Your task to perform on an android device: Go to accessibility settings Image 0: 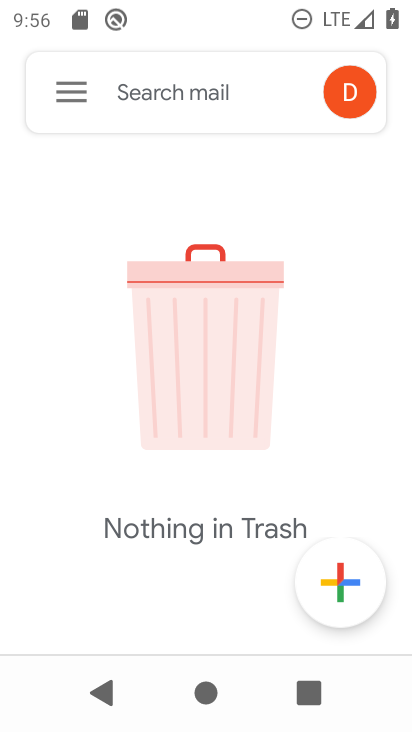
Step 0: click (78, 89)
Your task to perform on an android device: Go to accessibility settings Image 1: 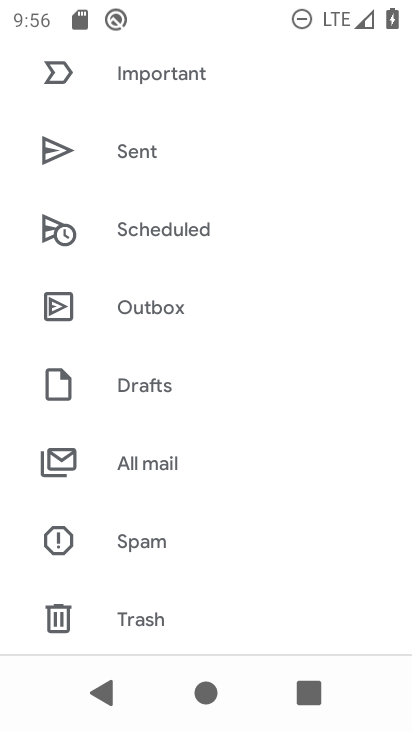
Step 1: drag from (194, 558) to (183, 216)
Your task to perform on an android device: Go to accessibility settings Image 2: 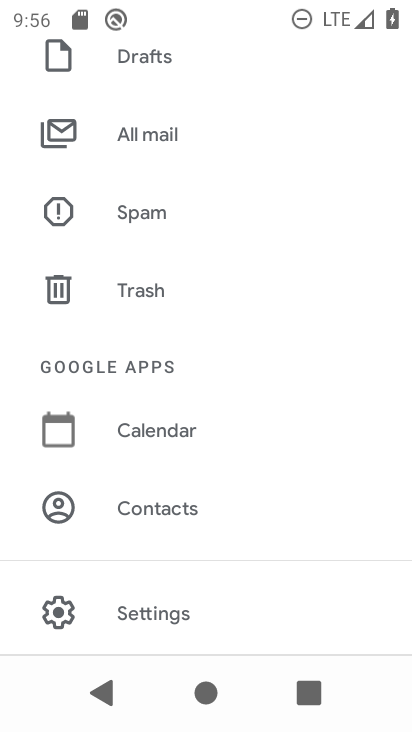
Step 2: click (192, 624)
Your task to perform on an android device: Go to accessibility settings Image 3: 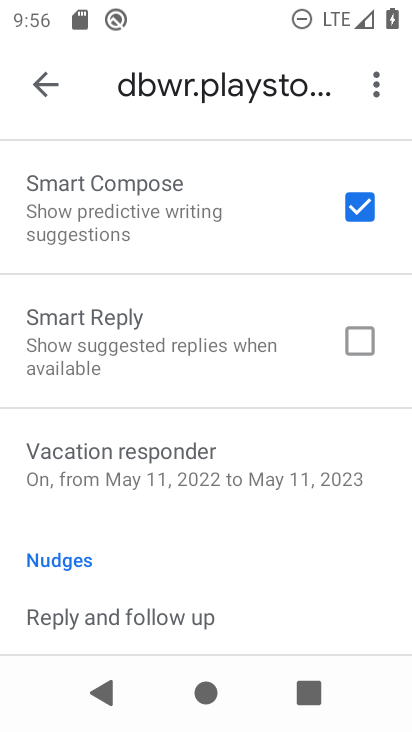
Step 3: press home button
Your task to perform on an android device: Go to accessibility settings Image 4: 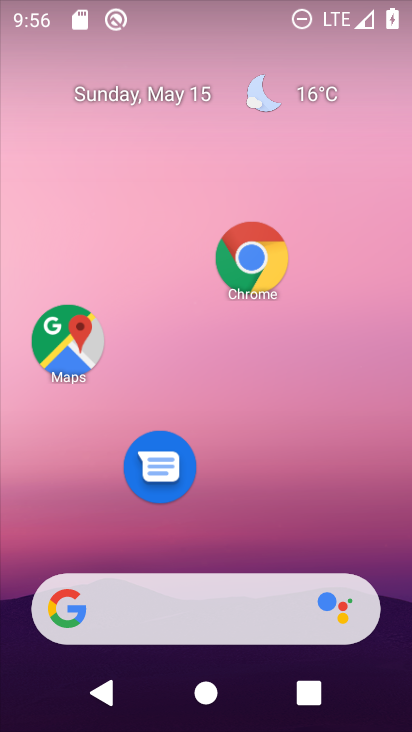
Step 4: drag from (176, 559) to (226, 37)
Your task to perform on an android device: Go to accessibility settings Image 5: 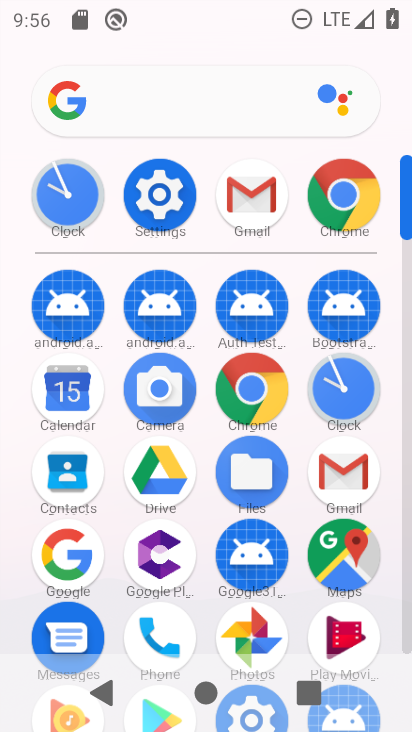
Step 5: click (169, 216)
Your task to perform on an android device: Go to accessibility settings Image 6: 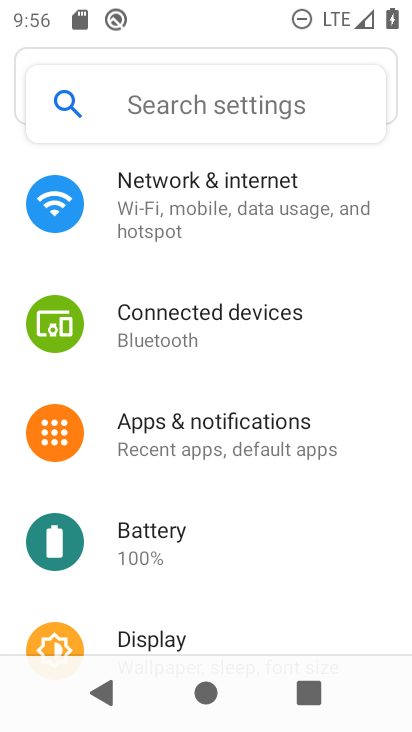
Step 6: drag from (173, 579) to (243, 225)
Your task to perform on an android device: Go to accessibility settings Image 7: 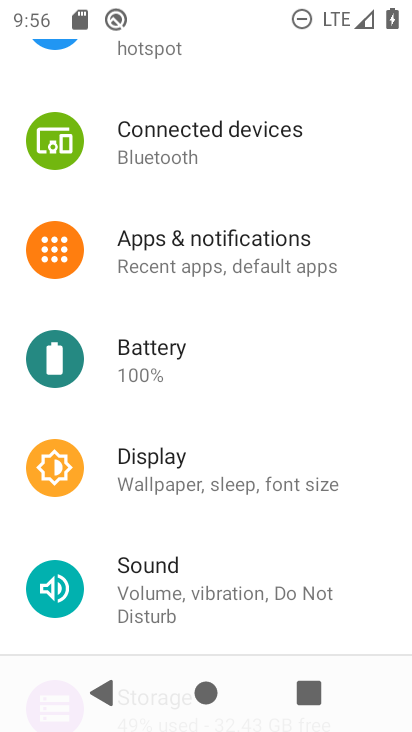
Step 7: drag from (171, 524) to (301, 69)
Your task to perform on an android device: Go to accessibility settings Image 8: 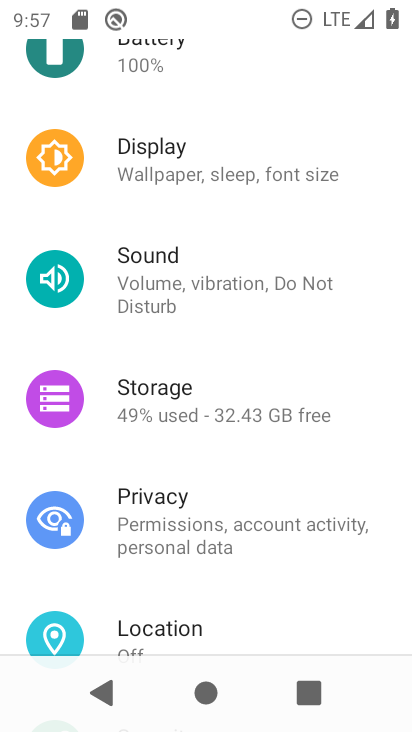
Step 8: drag from (148, 559) to (229, 30)
Your task to perform on an android device: Go to accessibility settings Image 9: 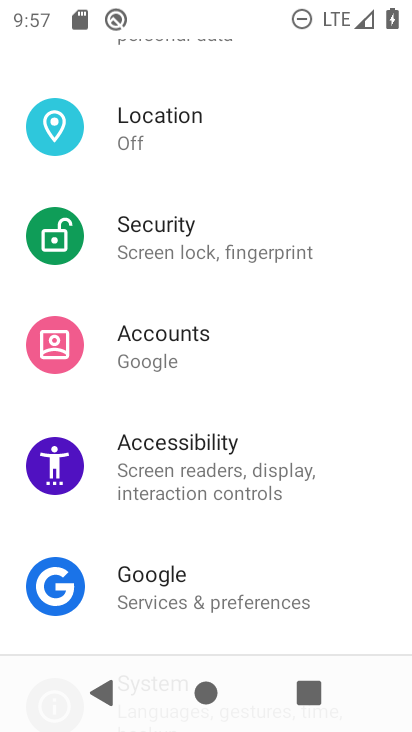
Step 9: click (194, 468)
Your task to perform on an android device: Go to accessibility settings Image 10: 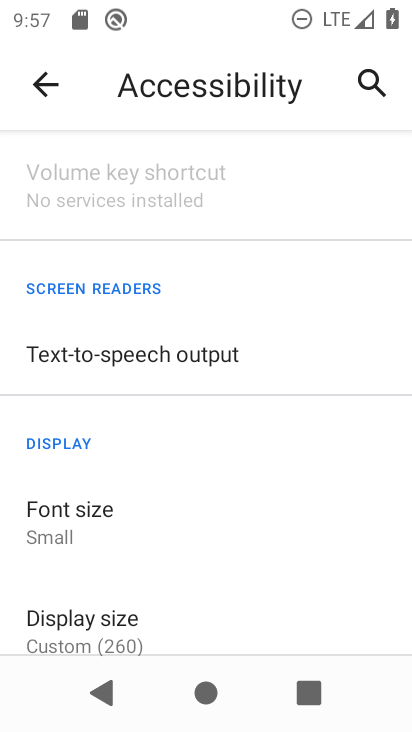
Step 10: task complete